Your task to perform on an android device: check storage Image 0: 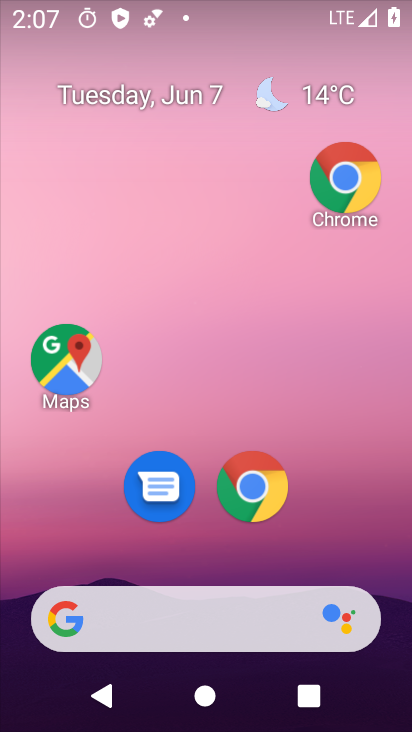
Step 0: drag from (72, 540) to (158, 155)
Your task to perform on an android device: check storage Image 1: 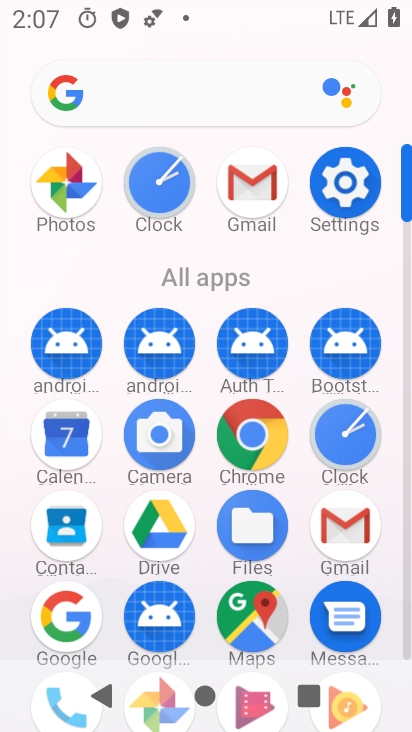
Step 1: drag from (131, 627) to (259, 312)
Your task to perform on an android device: check storage Image 2: 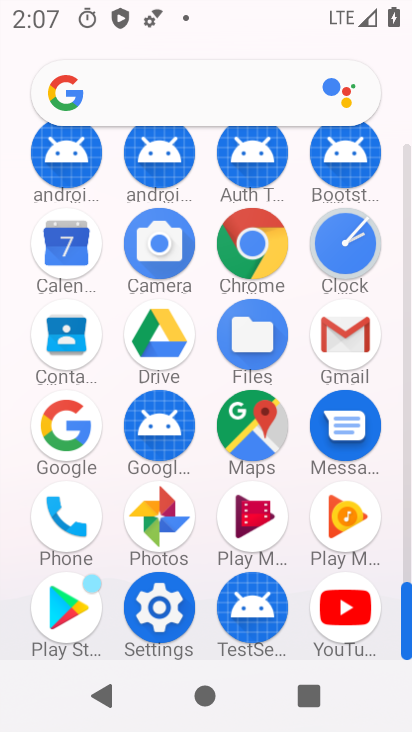
Step 2: click (165, 622)
Your task to perform on an android device: check storage Image 3: 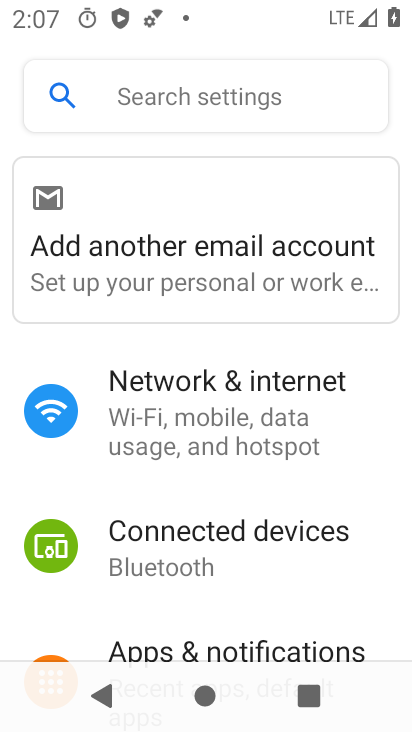
Step 3: drag from (165, 617) to (334, 152)
Your task to perform on an android device: check storage Image 4: 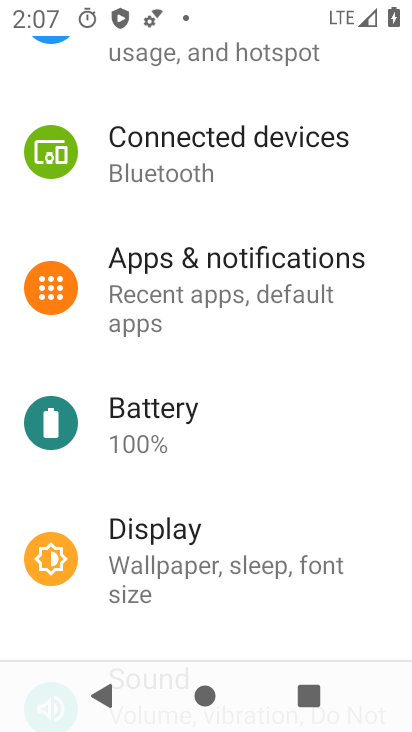
Step 4: drag from (174, 628) to (271, 272)
Your task to perform on an android device: check storage Image 5: 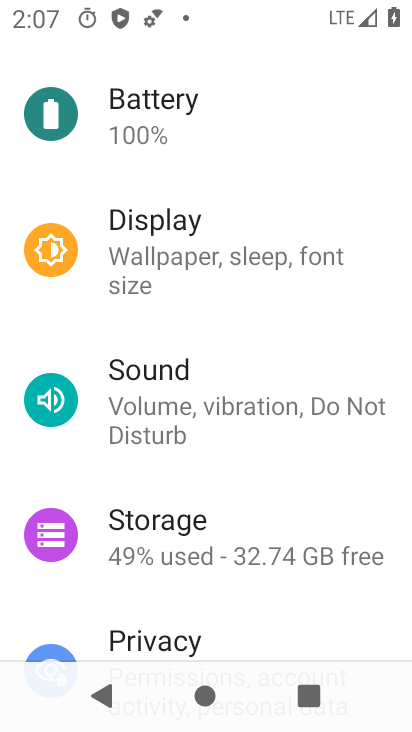
Step 5: click (198, 561)
Your task to perform on an android device: check storage Image 6: 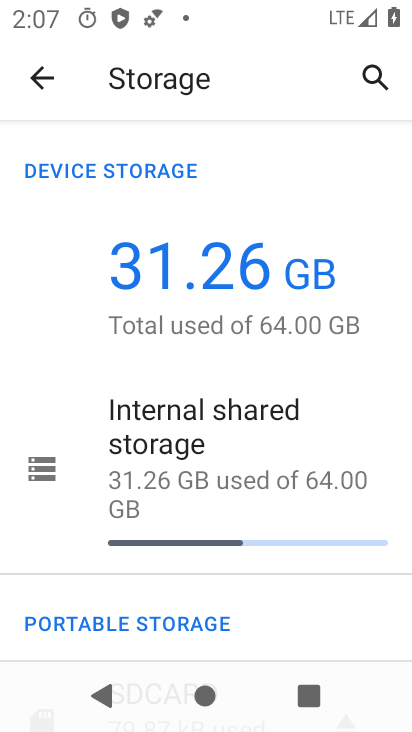
Step 6: task complete